Your task to perform on an android device: see sites visited before in the chrome app Image 0: 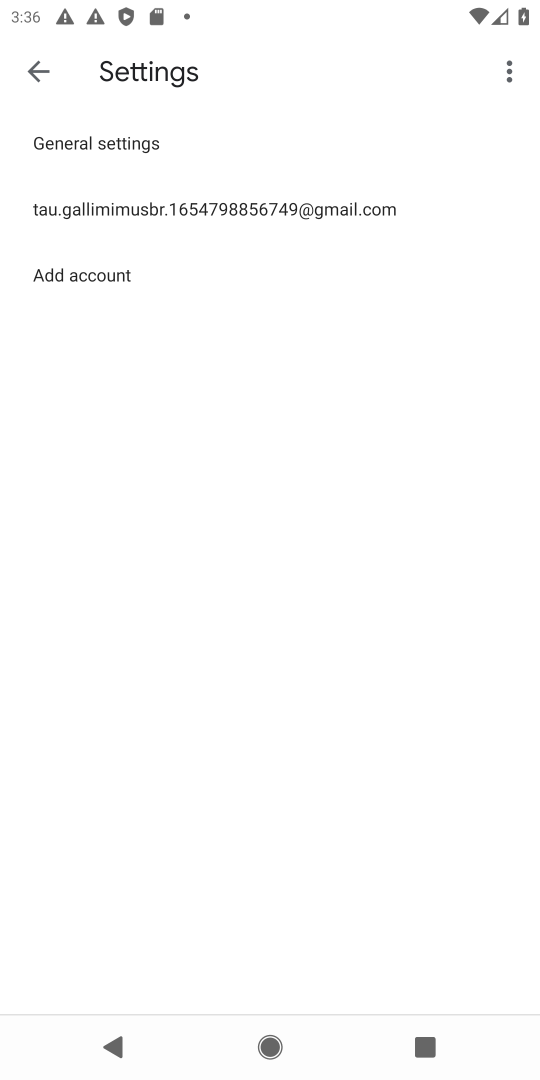
Step 0: press home button
Your task to perform on an android device: see sites visited before in the chrome app Image 1: 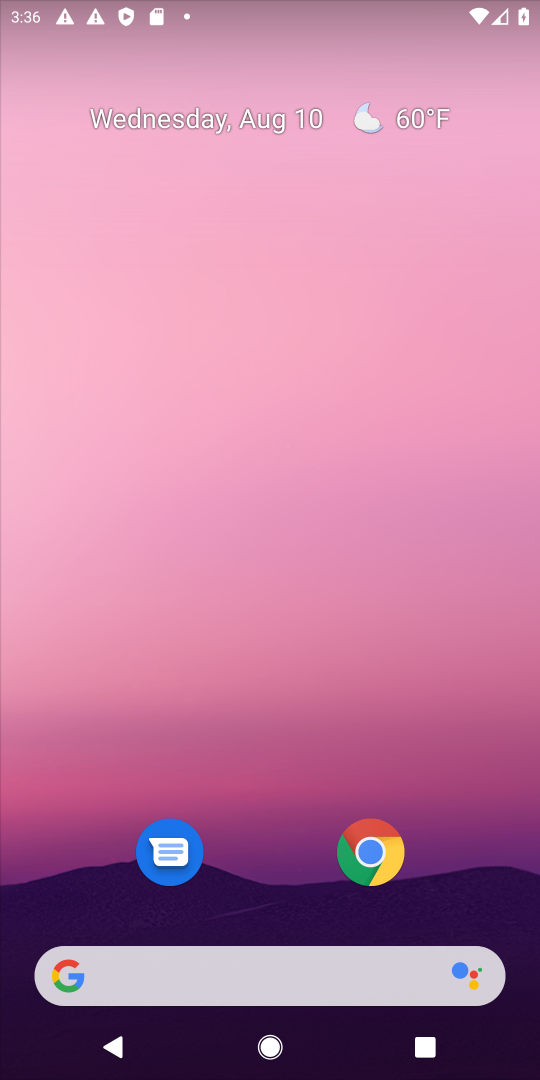
Step 1: click (374, 848)
Your task to perform on an android device: see sites visited before in the chrome app Image 2: 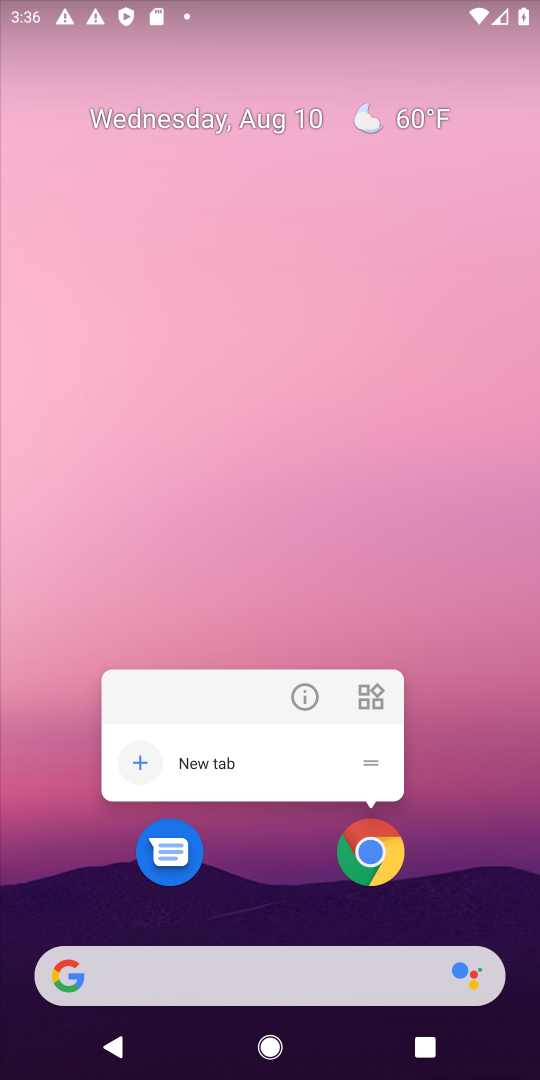
Step 2: click (374, 848)
Your task to perform on an android device: see sites visited before in the chrome app Image 3: 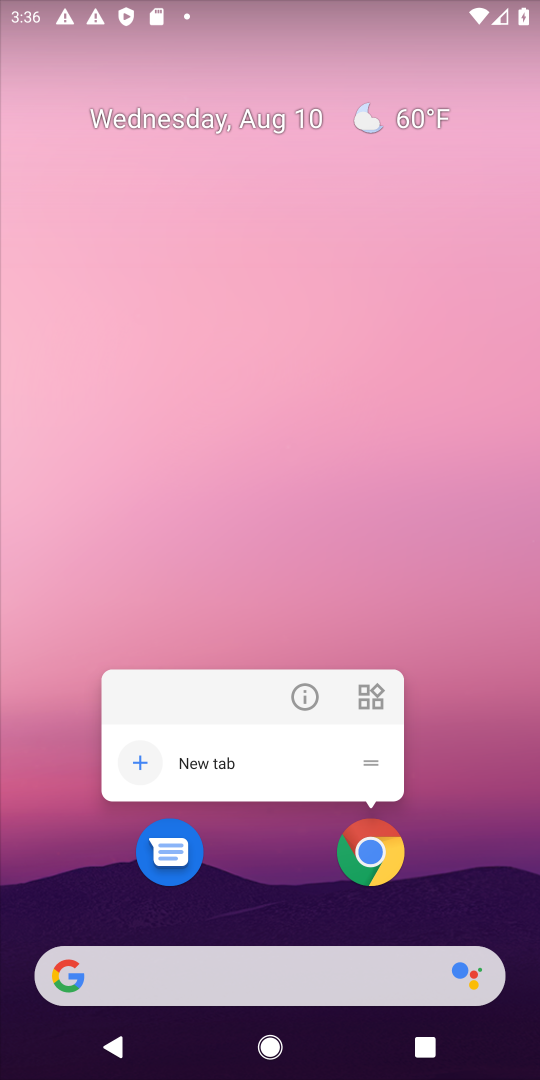
Step 3: click (370, 850)
Your task to perform on an android device: see sites visited before in the chrome app Image 4: 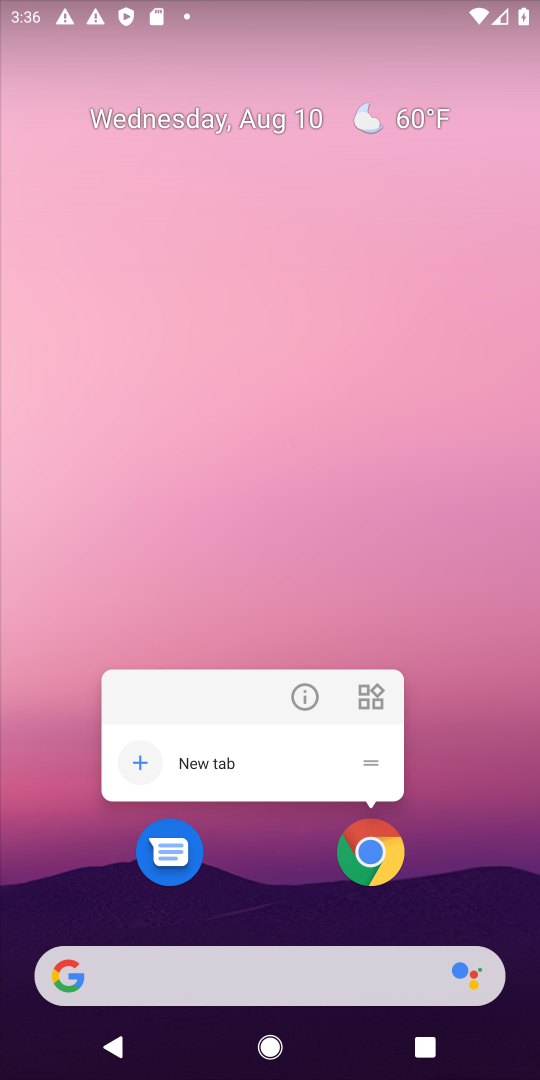
Step 4: click (435, 862)
Your task to perform on an android device: see sites visited before in the chrome app Image 5: 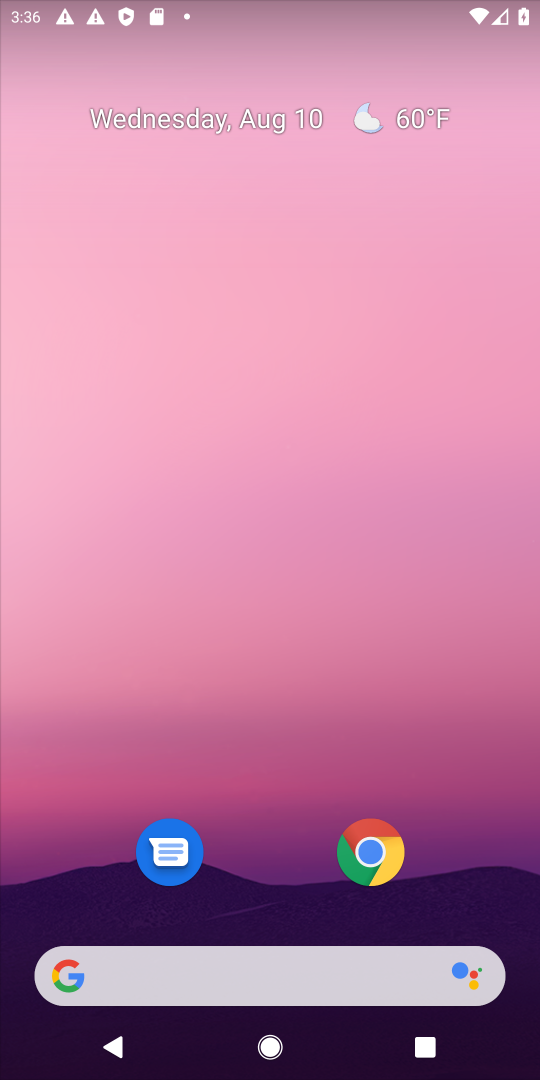
Step 5: drag from (450, 894) to (412, 183)
Your task to perform on an android device: see sites visited before in the chrome app Image 6: 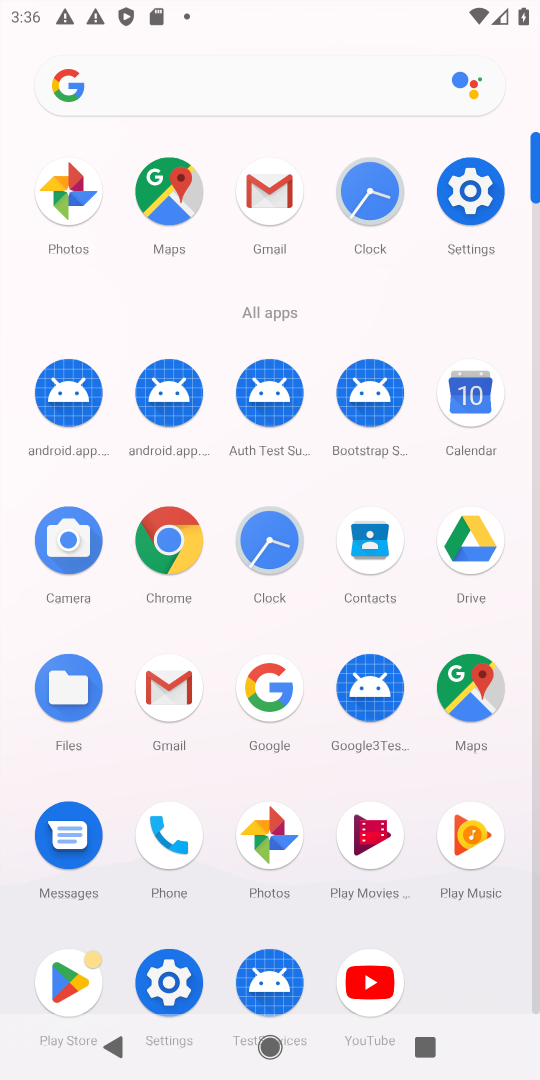
Step 6: click (172, 544)
Your task to perform on an android device: see sites visited before in the chrome app Image 7: 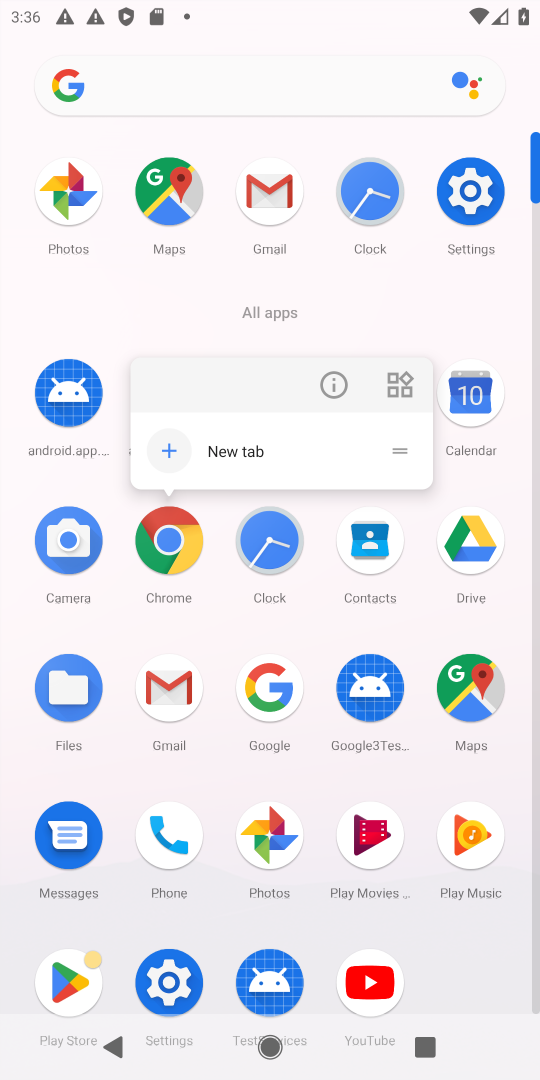
Step 7: click (172, 544)
Your task to perform on an android device: see sites visited before in the chrome app Image 8: 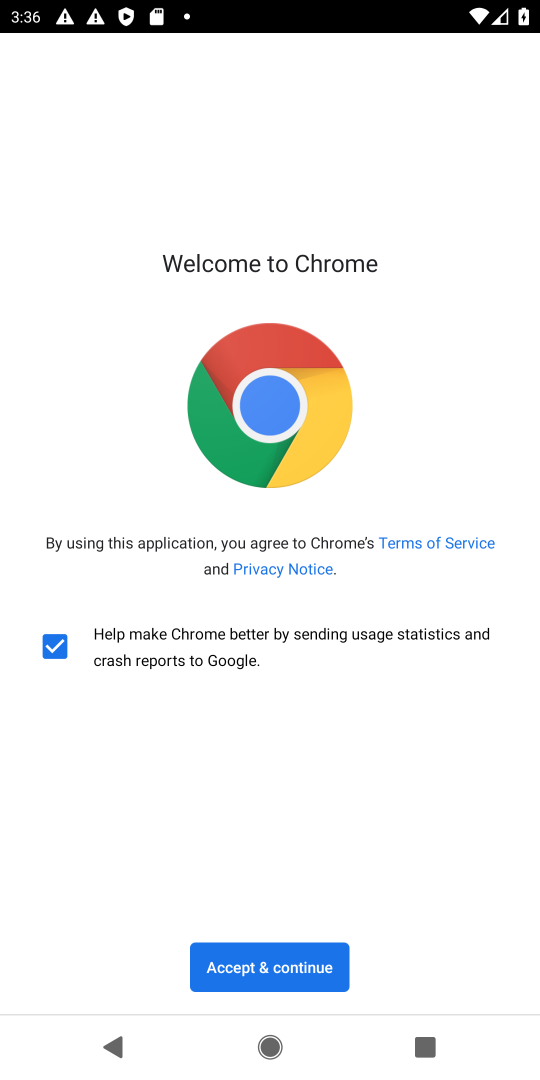
Step 8: click (286, 972)
Your task to perform on an android device: see sites visited before in the chrome app Image 9: 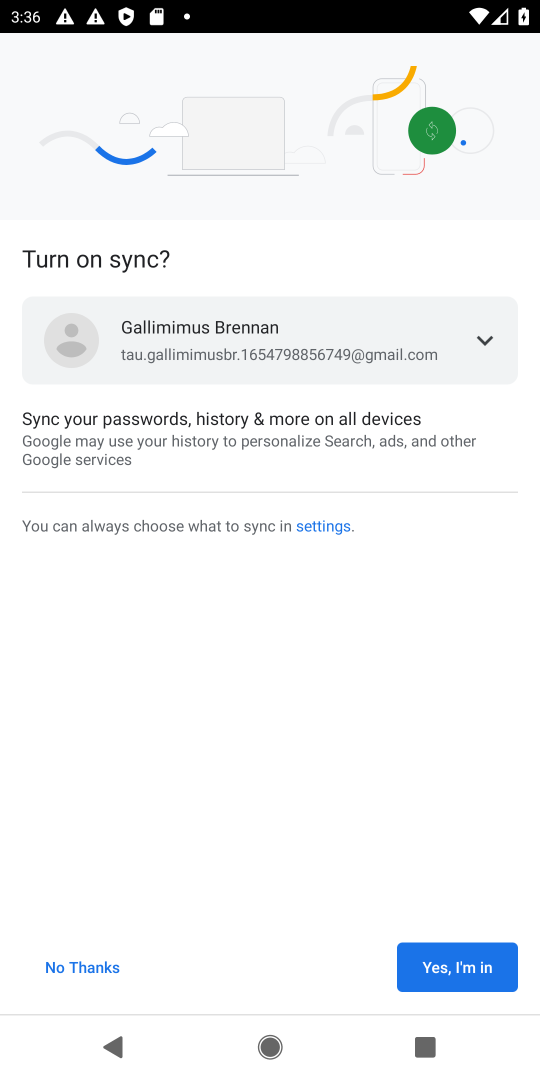
Step 9: click (428, 967)
Your task to perform on an android device: see sites visited before in the chrome app Image 10: 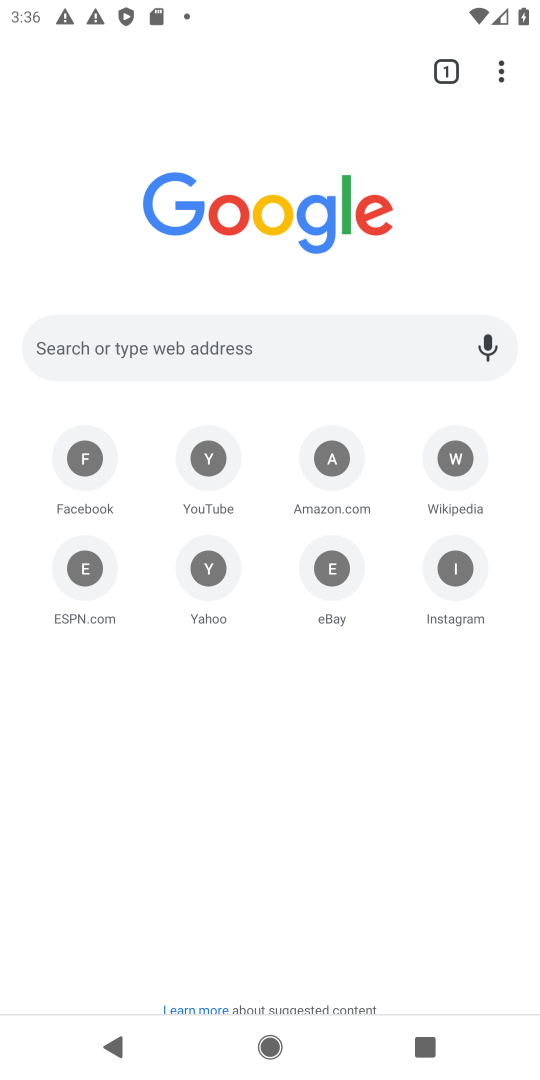
Step 10: task complete